Your task to perform on an android device: Check the weather Image 0: 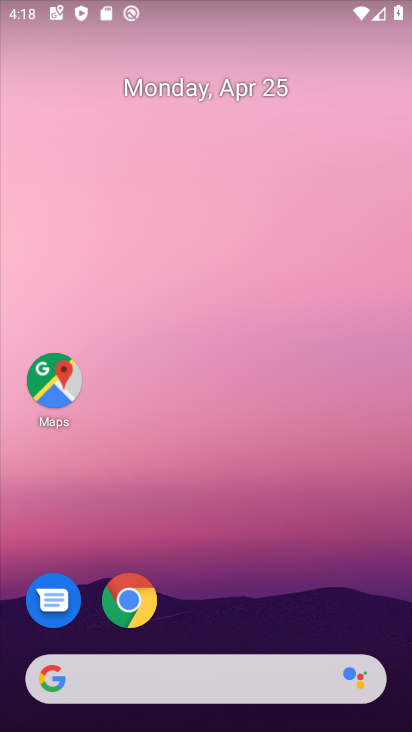
Step 0: drag from (273, 475) to (229, 18)
Your task to perform on an android device: Check the weather Image 1: 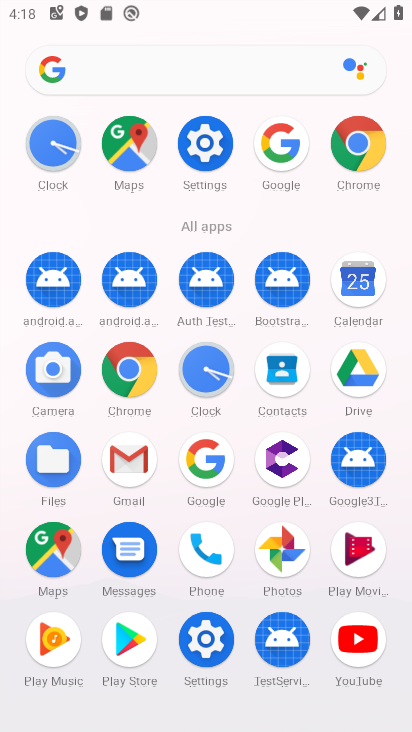
Step 1: click (197, 66)
Your task to perform on an android device: Check the weather Image 2: 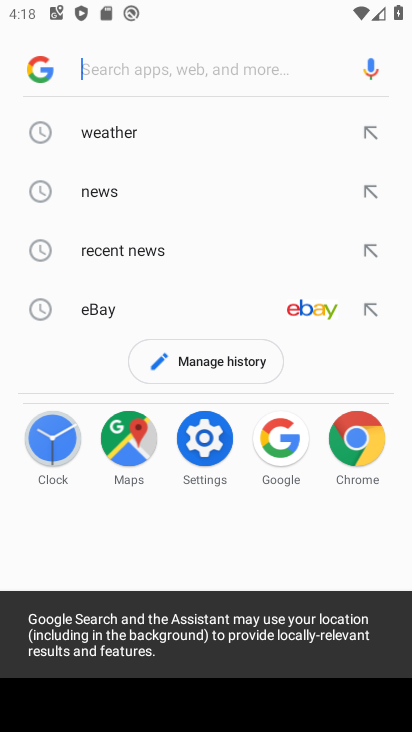
Step 2: click (113, 130)
Your task to perform on an android device: Check the weather Image 3: 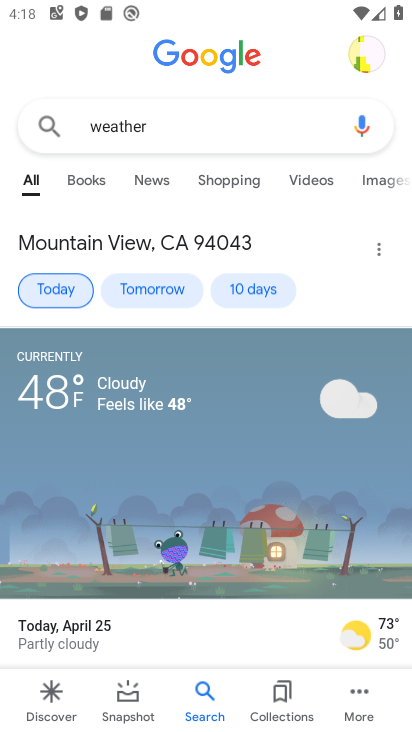
Step 3: task complete